Your task to perform on an android device: Go to Google maps Image 0: 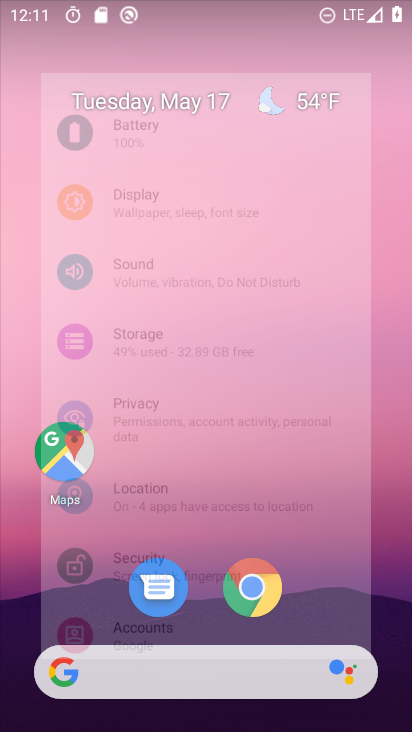
Step 0: drag from (208, 616) to (261, 136)
Your task to perform on an android device: Go to Google maps Image 1: 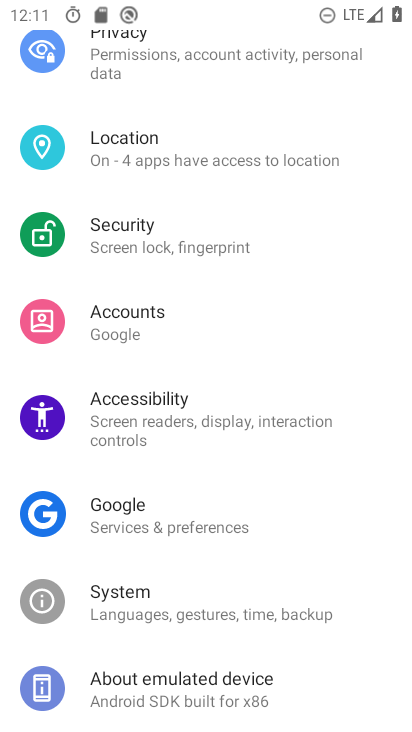
Step 1: drag from (241, 131) to (223, 728)
Your task to perform on an android device: Go to Google maps Image 2: 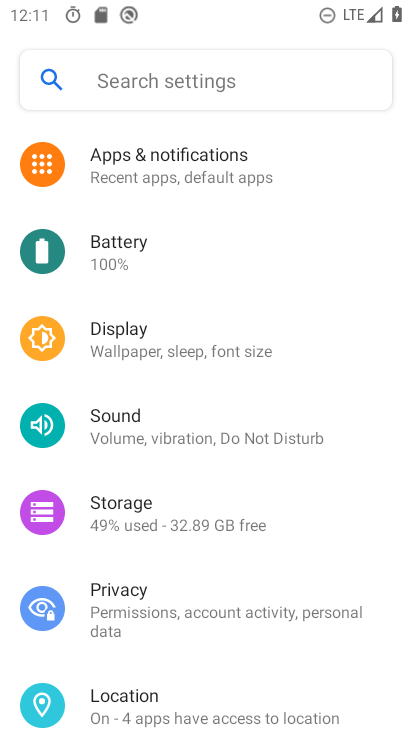
Step 2: press home button
Your task to perform on an android device: Go to Google maps Image 3: 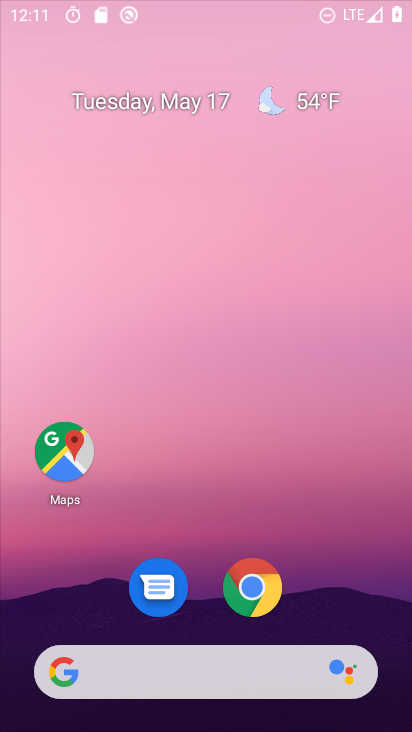
Step 3: drag from (212, 621) to (228, 193)
Your task to perform on an android device: Go to Google maps Image 4: 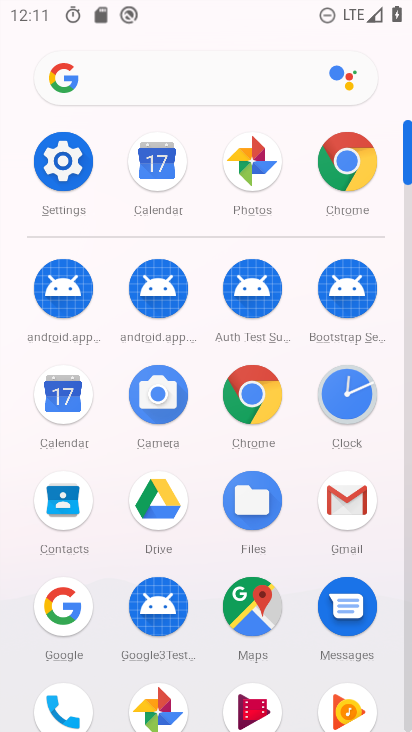
Step 4: click (252, 623)
Your task to perform on an android device: Go to Google maps Image 5: 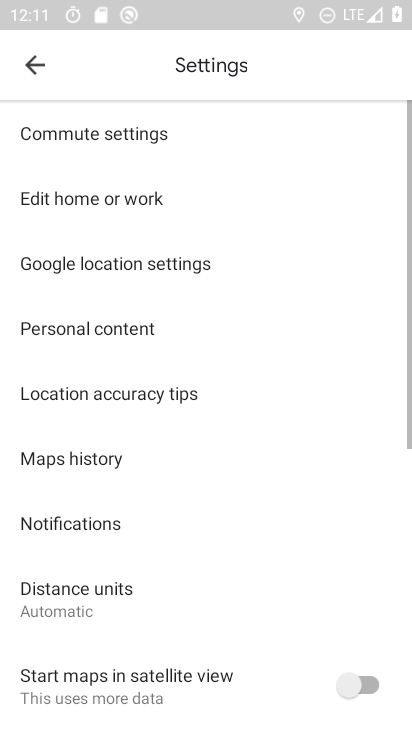
Step 5: task complete